Your task to perform on an android device: Open the stopwatch Image 0: 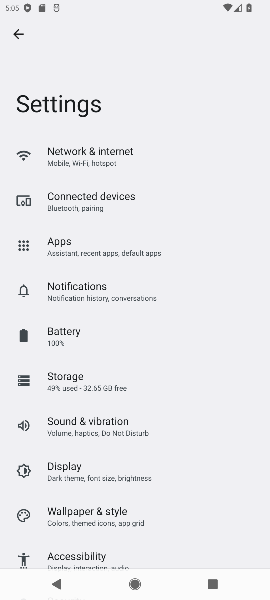
Step 0: press home button
Your task to perform on an android device: Open the stopwatch Image 1: 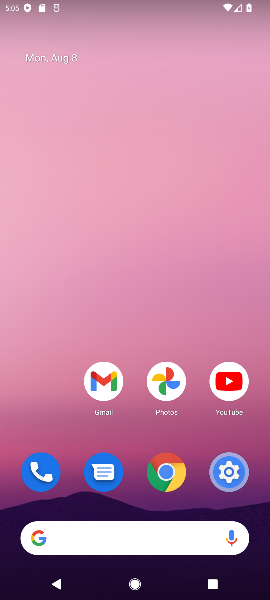
Step 1: drag from (126, 342) to (121, 0)
Your task to perform on an android device: Open the stopwatch Image 2: 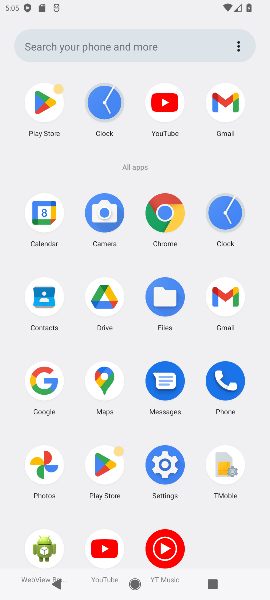
Step 2: click (225, 215)
Your task to perform on an android device: Open the stopwatch Image 3: 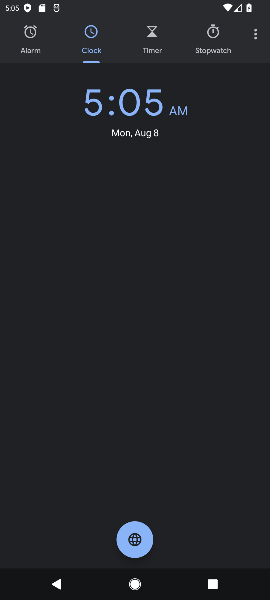
Step 3: click (220, 48)
Your task to perform on an android device: Open the stopwatch Image 4: 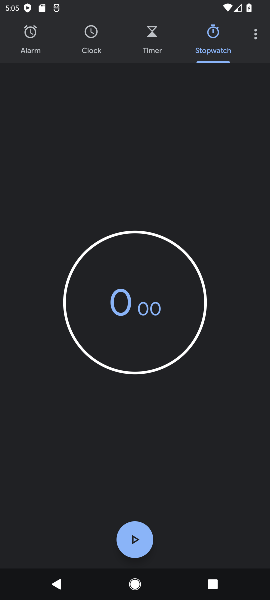
Step 4: task complete